Your task to perform on an android device: Go to Yahoo.com Image 0: 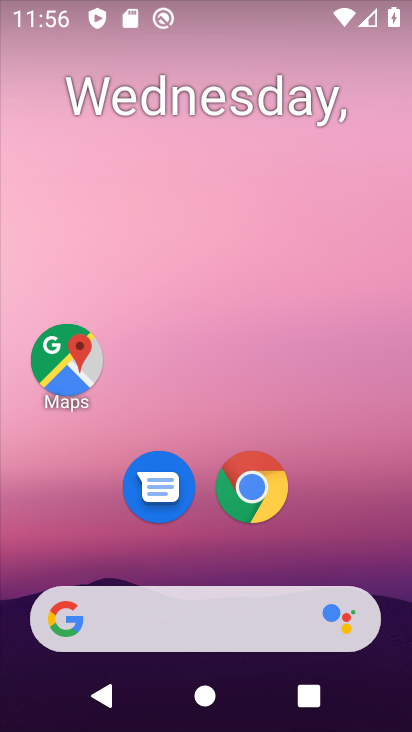
Step 0: click (251, 484)
Your task to perform on an android device: Go to Yahoo.com Image 1: 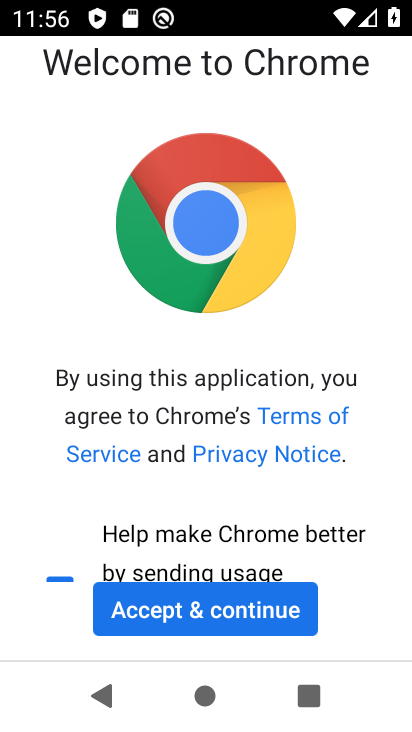
Step 1: click (177, 599)
Your task to perform on an android device: Go to Yahoo.com Image 2: 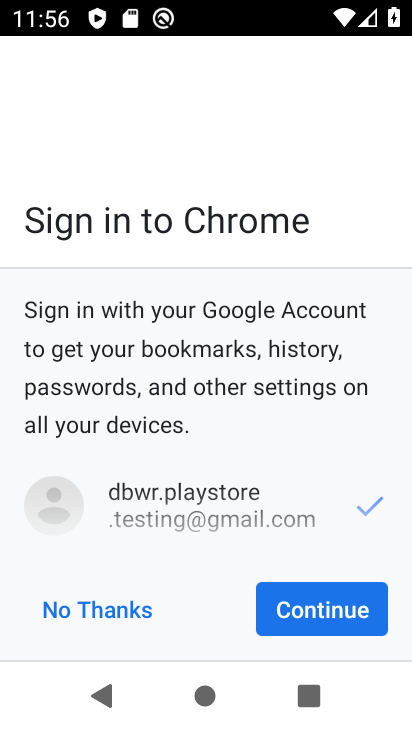
Step 2: click (303, 606)
Your task to perform on an android device: Go to Yahoo.com Image 3: 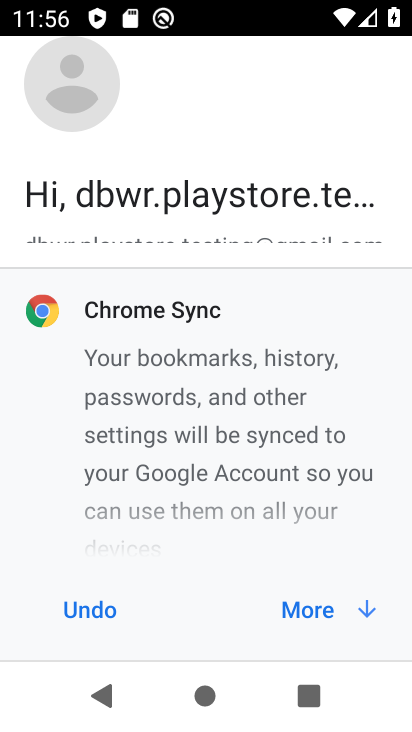
Step 3: click (303, 606)
Your task to perform on an android device: Go to Yahoo.com Image 4: 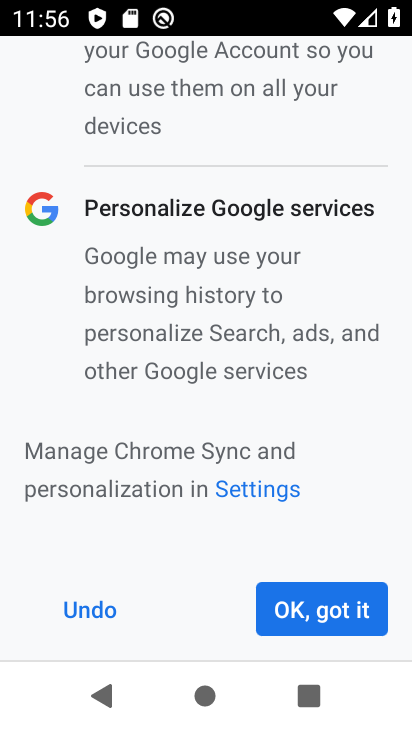
Step 4: click (303, 606)
Your task to perform on an android device: Go to Yahoo.com Image 5: 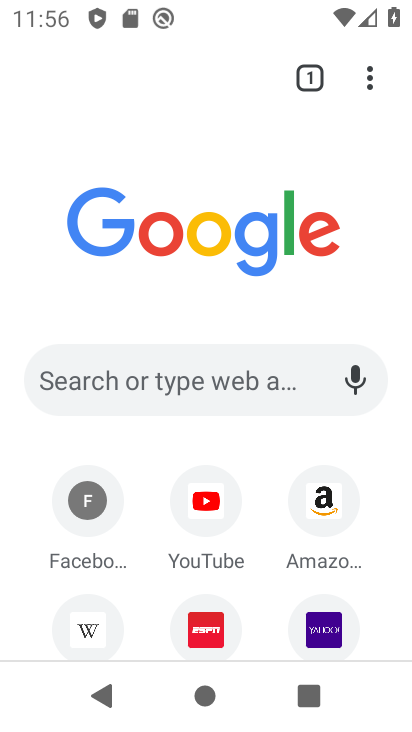
Step 5: type " Italian restaurants"
Your task to perform on an android device: Go to Yahoo.com Image 6: 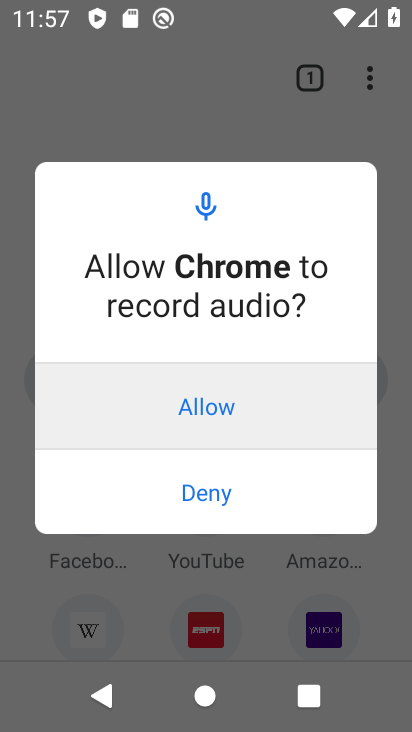
Step 6: type " Yahoo.com"
Your task to perform on an android device: Go to Yahoo.com Image 7: 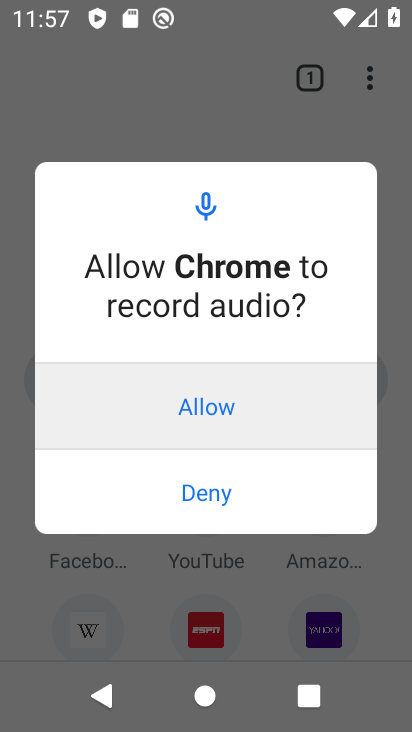
Step 7: click (215, 479)
Your task to perform on an android device: Go to Yahoo.com Image 8: 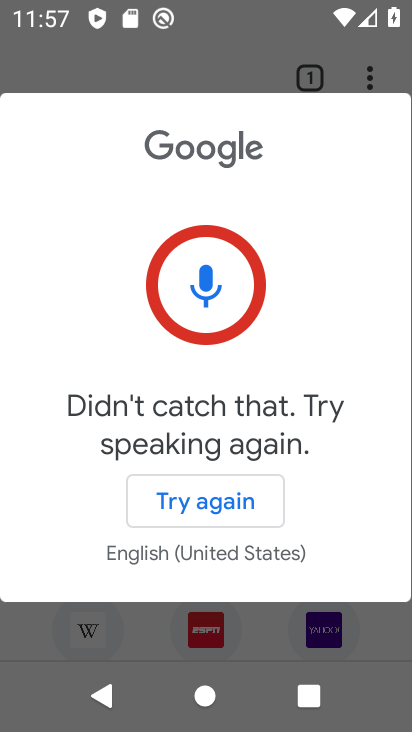
Step 8: click (219, 57)
Your task to perform on an android device: Go to Yahoo.com Image 9: 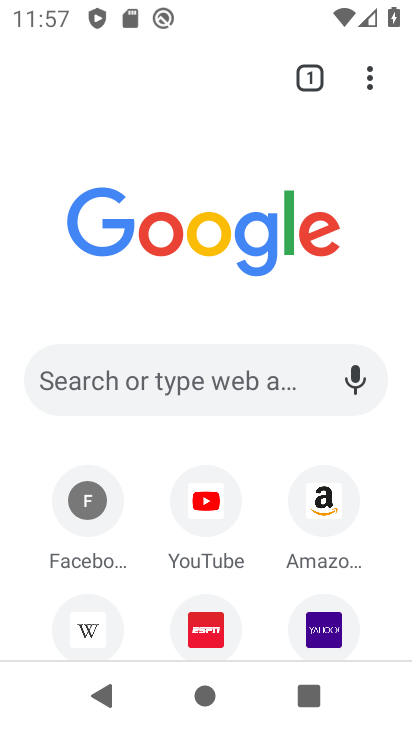
Step 9: click (263, 383)
Your task to perform on an android device: Go to Yahoo.com Image 10: 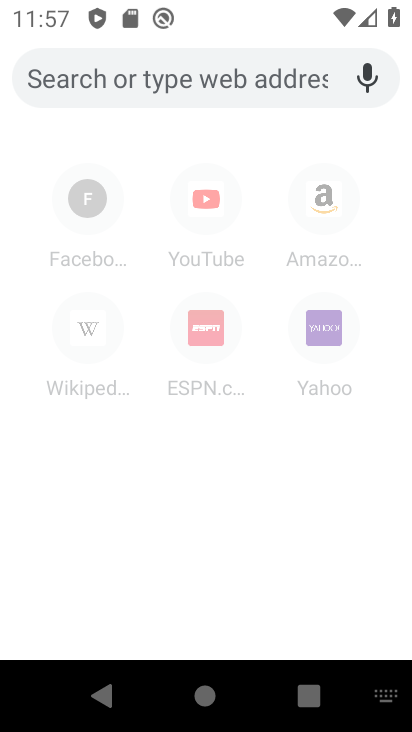
Step 10: type " Yahoo.com"
Your task to perform on an android device: Go to Yahoo.com Image 11: 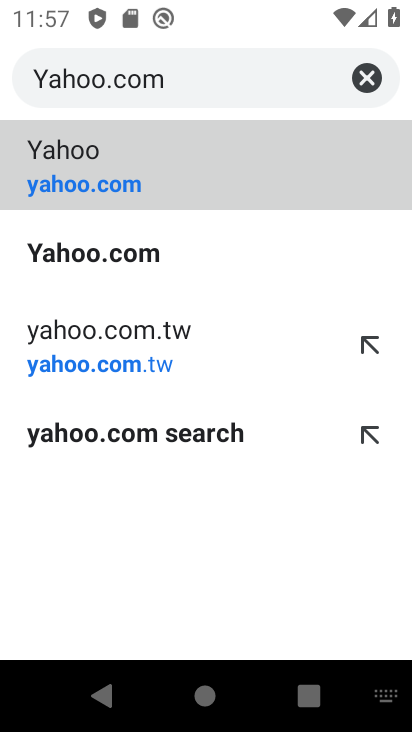
Step 11: click (177, 155)
Your task to perform on an android device: Go to Yahoo.com Image 12: 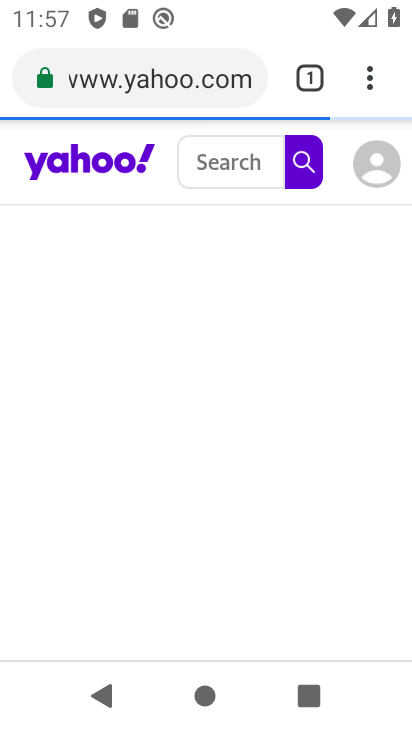
Step 12: task complete